Your task to perform on an android device: turn off translation in the chrome app Image 0: 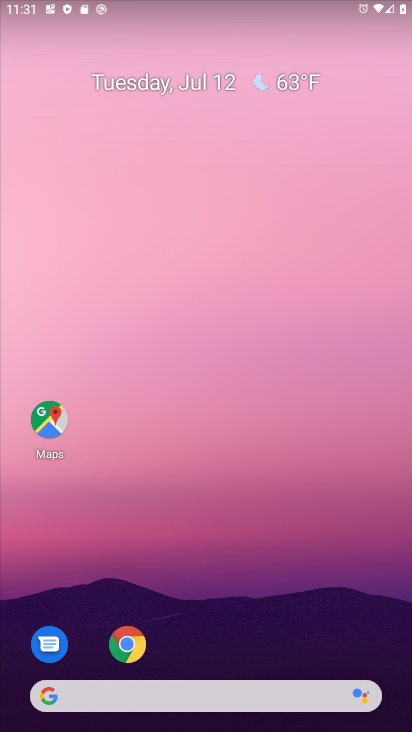
Step 0: click (128, 643)
Your task to perform on an android device: turn off translation in the chrome app Image 1: 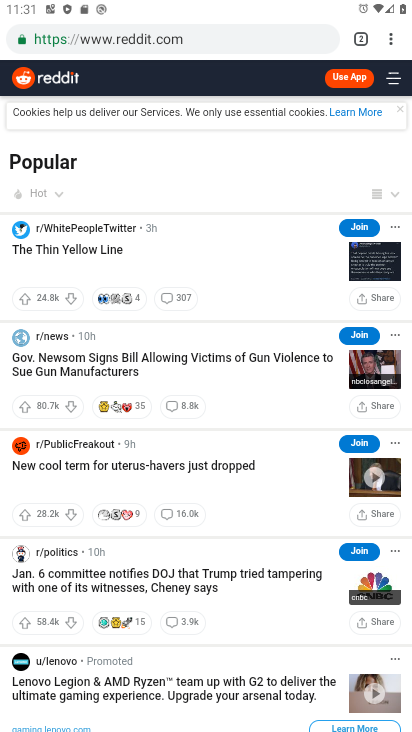
Step 1: click (392, 37)
Your task to perform on an android device: turn off translation in the chrome app Image 2: 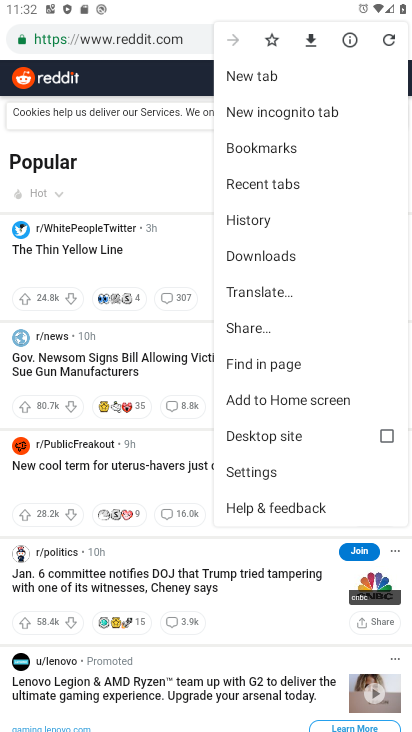
Step 2: click (259, 474)
Your task to perform on an android device: turn off translation in the chrome app Image 3: 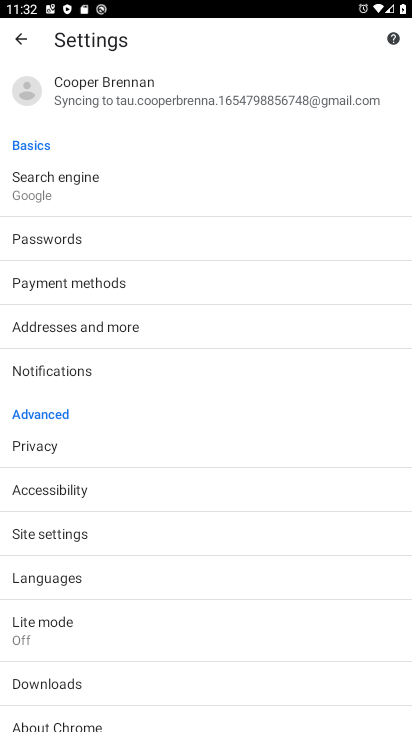
Step 3: click (46, 577)
Your task to perform on an android device: turn off translation in the chrome app Image 4: 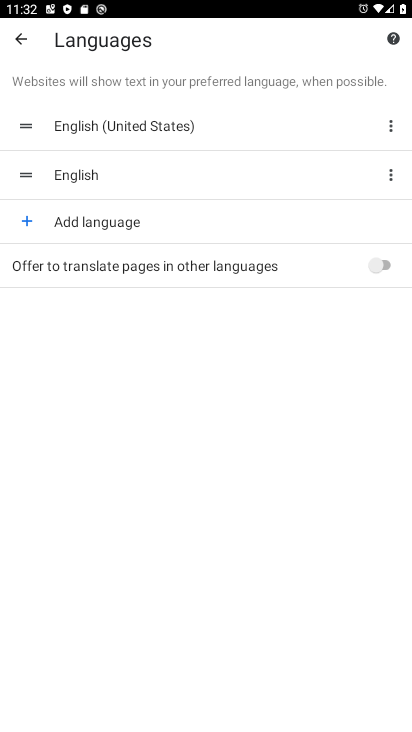
Step 4: task complete